Your task to perform on an android device: delete location history Image 0: 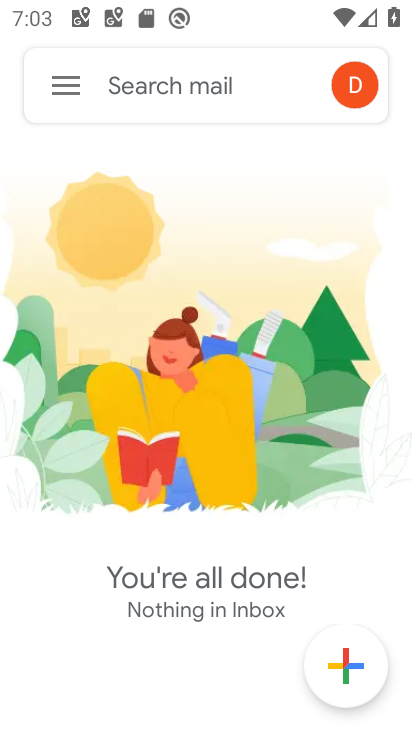
Step 0: press home button
Your task to perform on an android device: delete location history Image 1: 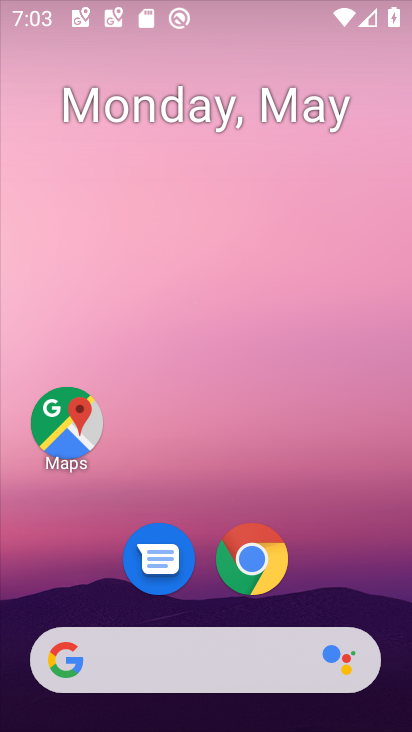
Step 1: drag from (396, 612) to (304, 9)
Your task to perform on an android device: delete location history Image 2: 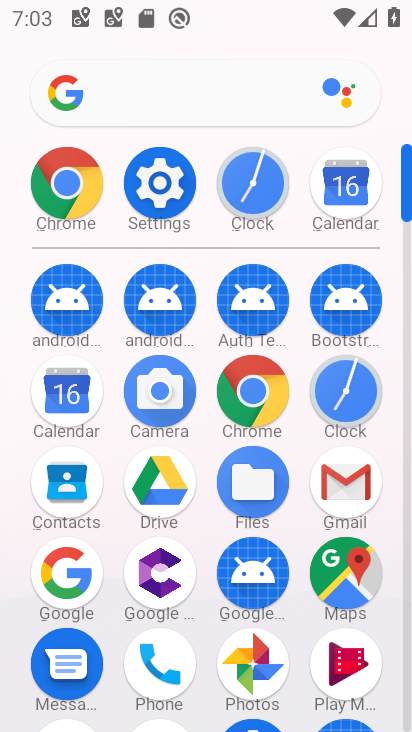
Step 2: click (153, 164)
Your task to perform on an android device: delete location history Image 3: 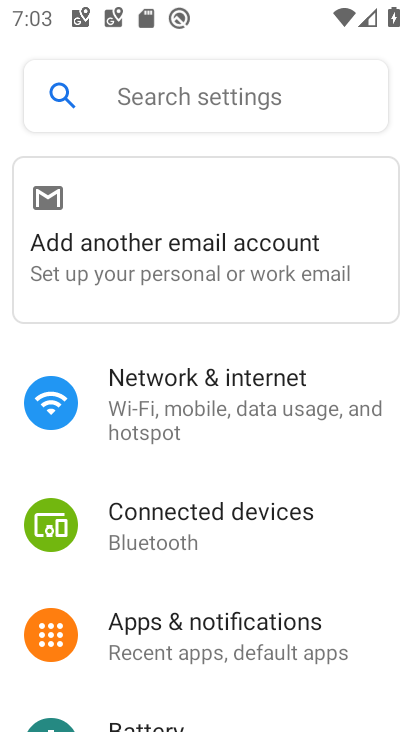
Step 3: drag from (147, 656) to (248, 31)
Your task to perform on an android device: delete location history Image 4: 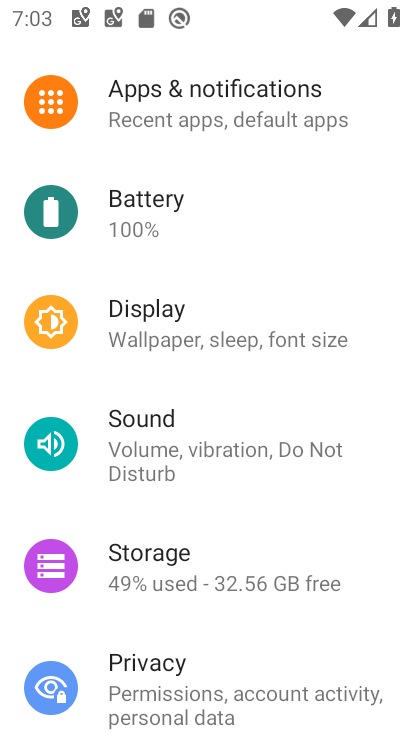
Step 4: drag from (178, 675) to (277, 125)
Your task to perform on an android device: delete location history Image 5: 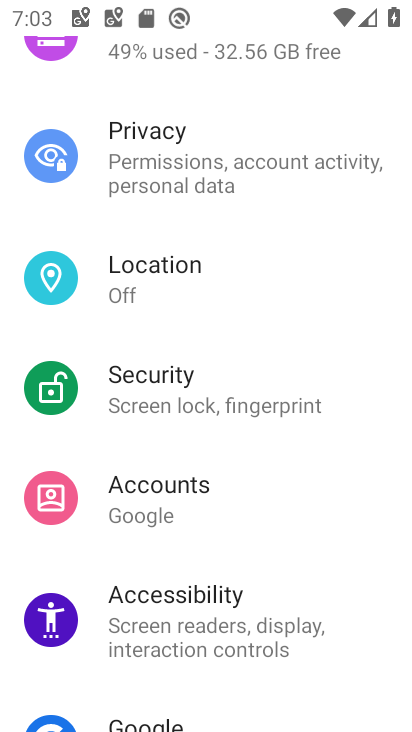
Step 5: click (159, 282)
Your task to perform on an android device: delete location history Image 6: 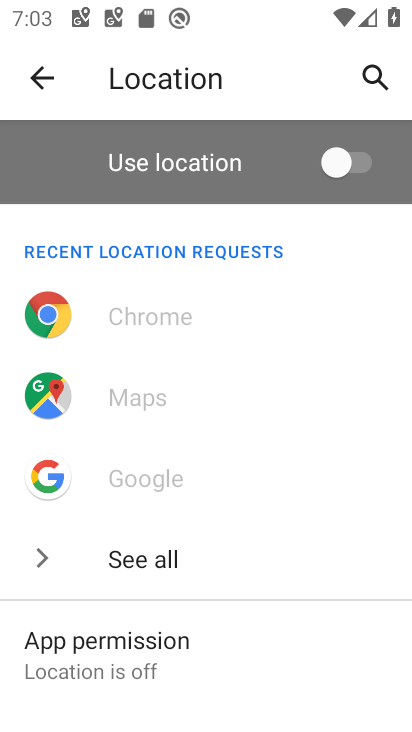
Step 6: drag from (109, 674) to (201, 443)
Your task to perform on an android device: delete location history Image 7: 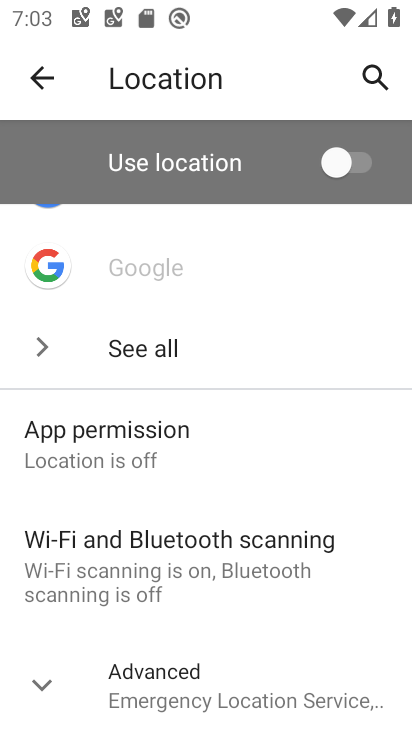
Step 7: click (119, 643)
Your task to perform on an android device: delete location history Image 8: 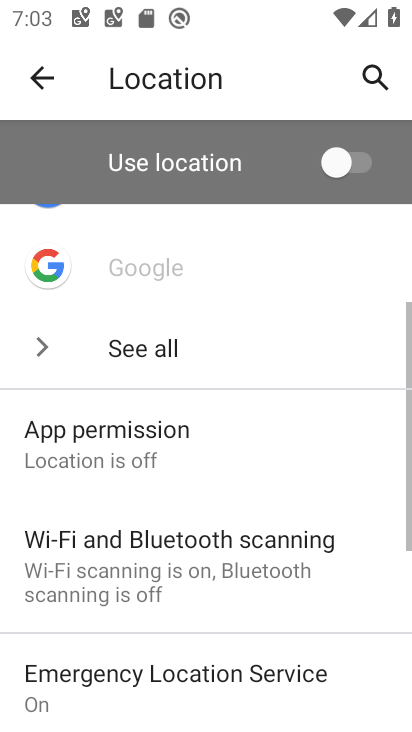
Step 8: drag from (139, 647) to (193, 214)
Your task to perform on an android device: delete location history Image 9: 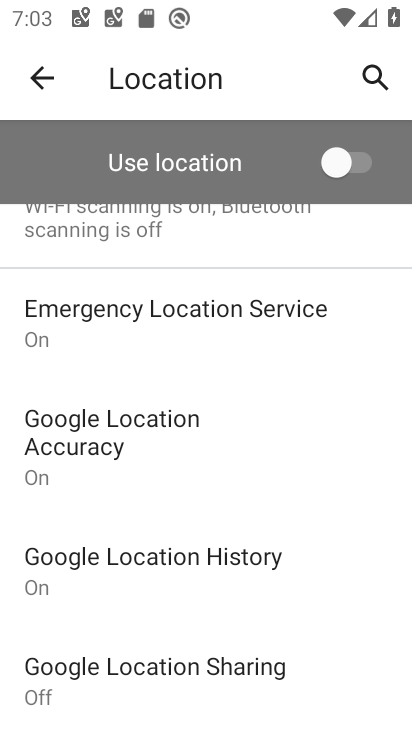
Step 9: click (163, 580)
Your task to perform on an android device: delete location history Image 10: 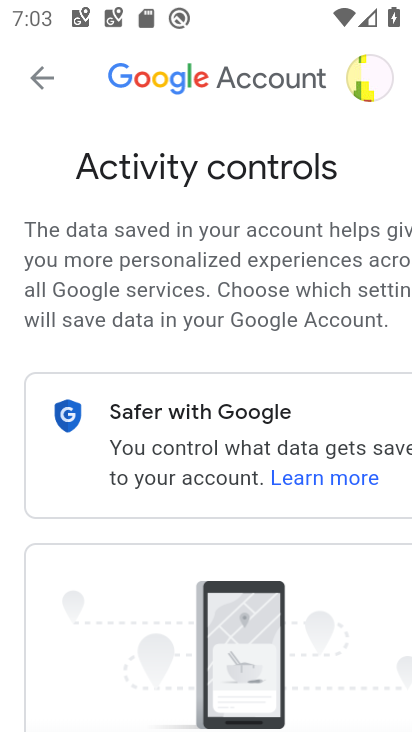
Step 10: drag from (261, 638) to (196, 129)
Your task to perform on an android device: delete location history Image 11: 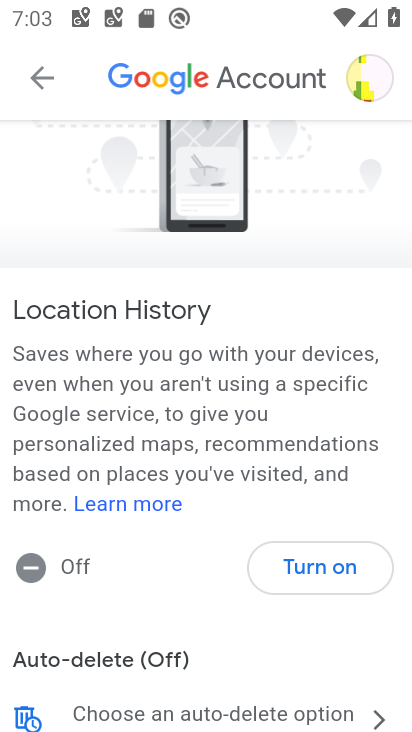
Step 11: drag from (251, 669) to (329, 363)
Your task to perform on an android device: delete location history Image 12: 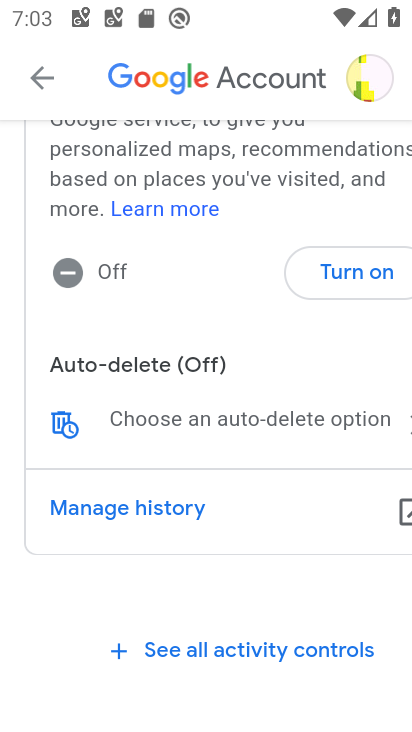
Step 12: click (196, 420)
Your task to perform on an android device: delete location history Image 13: 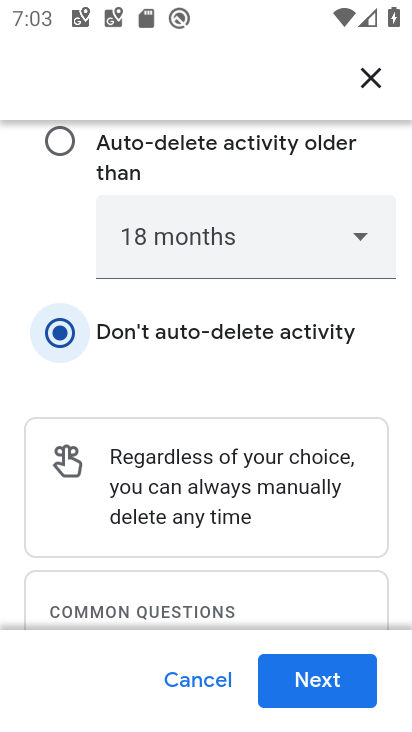
Step 13: click (308, 697)
Your task to perform on an android device: delete location history Image 14: 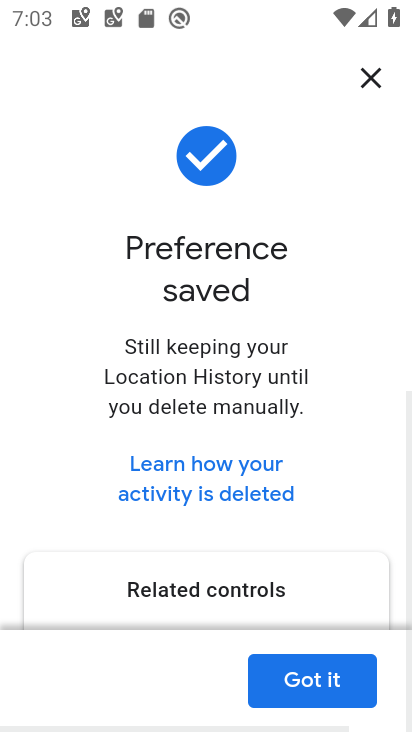
Step 14: click (283, 670)
Your task to perform on an android device: delete location history Image 15: 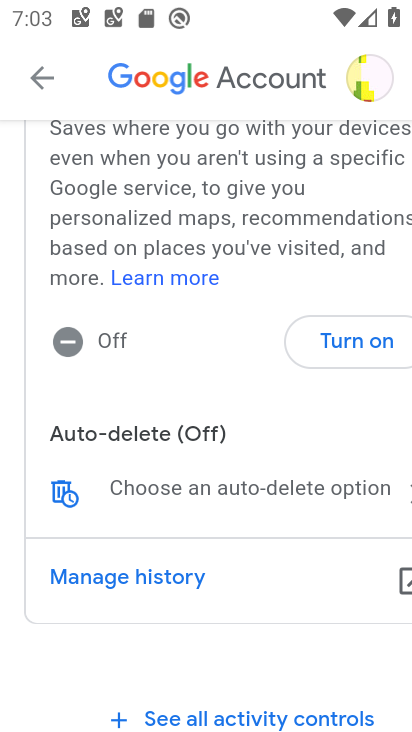
Step 15: task complete